Your task to perform on an android device: open sync settings in chrome Image 0: 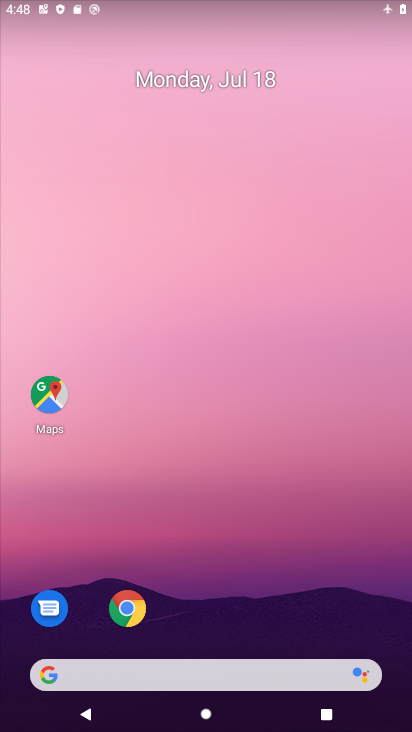
Step 0: drag from (282, 555) to (265, 32)
Your task to perform on an android device: open sync settings in chrome Image 1: 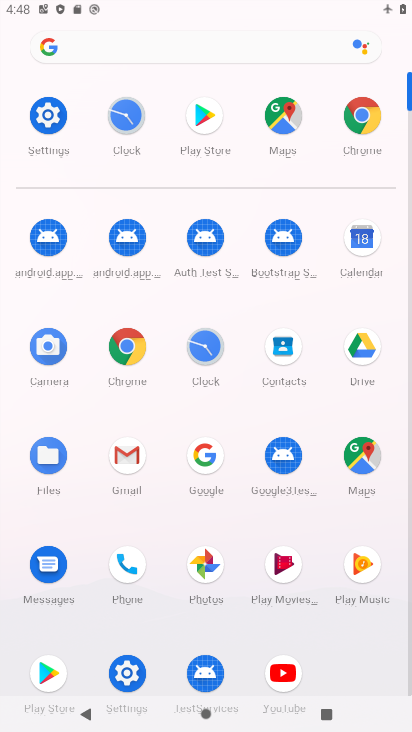
Step 1: click (123, 341)
Your task to perform on an android device: open sync settings in chrome Image 2: 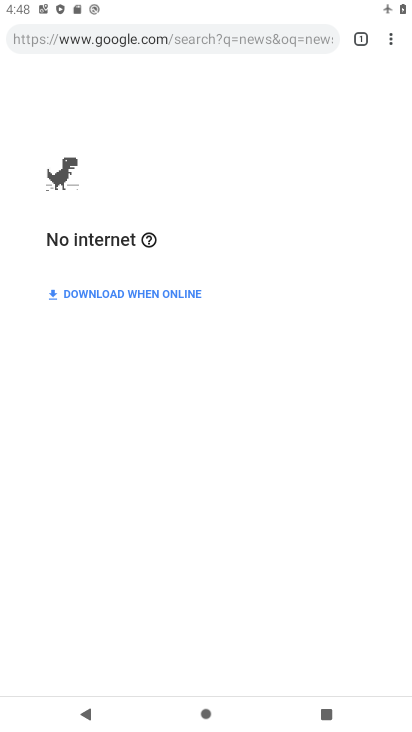
Step 2: drag from (394, 37) to (237, 424)
Your task to perform on an android device: open sync settings in chrome Image 3: 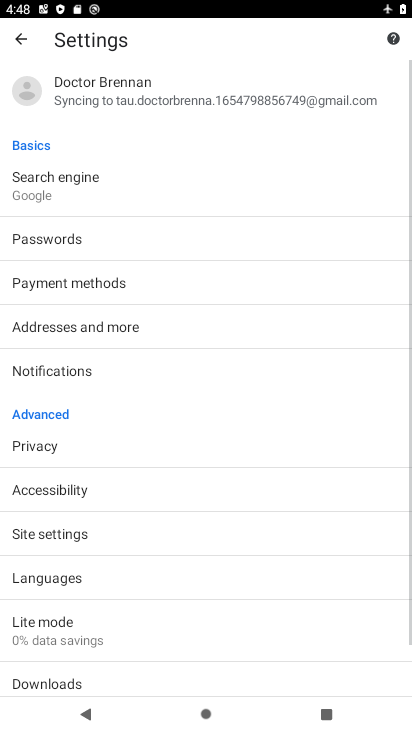
Step 3: click (192, 88)
Your task to perform on an android device: open sync settings in chrome Image 4: 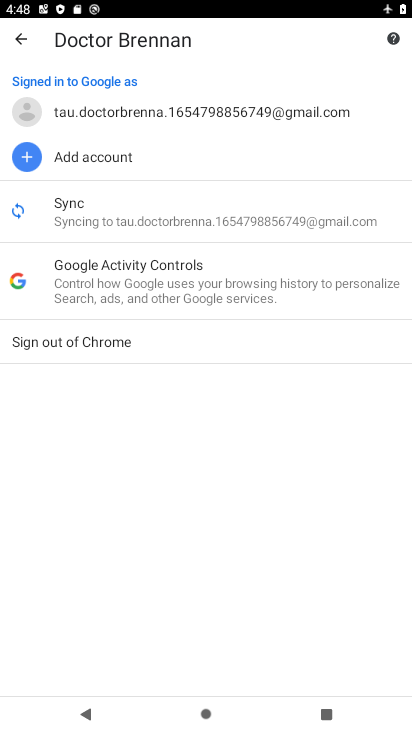
Step 4: click (153, 209)
Your task to perform on an android device: open sync settings in chrome Image 5: 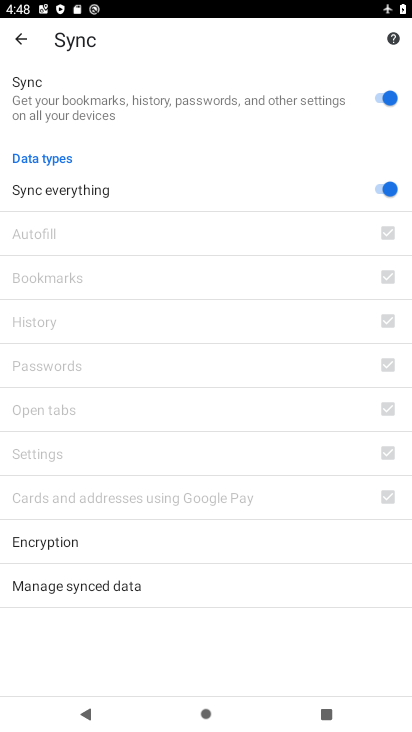
Step 5: task complete